Your task to perform on an android device: turn on the 24-hour format for clock Image 0: 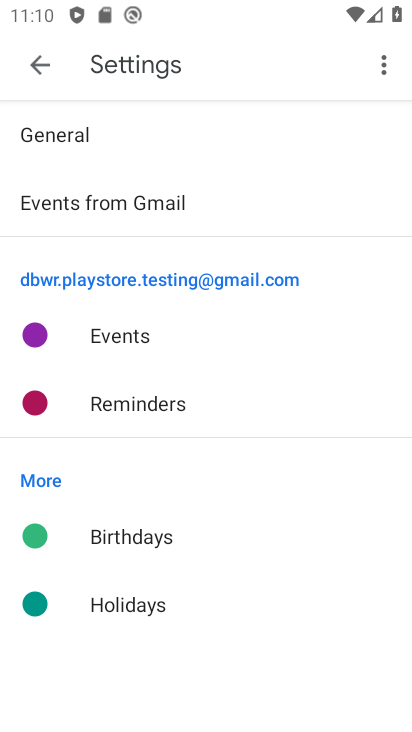
Step 0: press home button
Your task to perform on an android device: turn on the 24-hour format for clock Image 1: 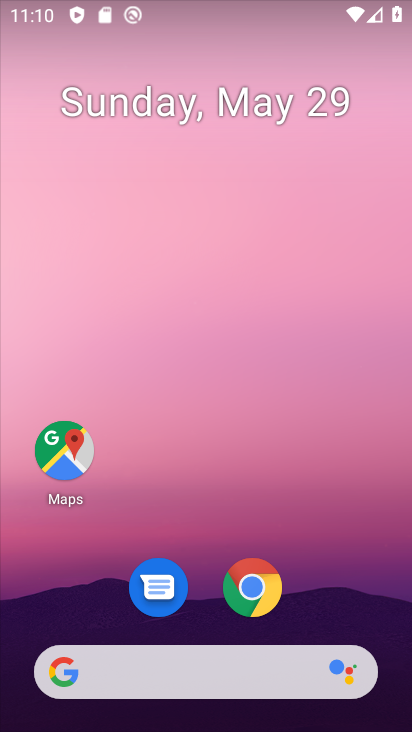
Step 1: drag from (365, 617) to (291, 89)
Your task to perform on an android device: turn on the 24-hour format for clock Image 2: 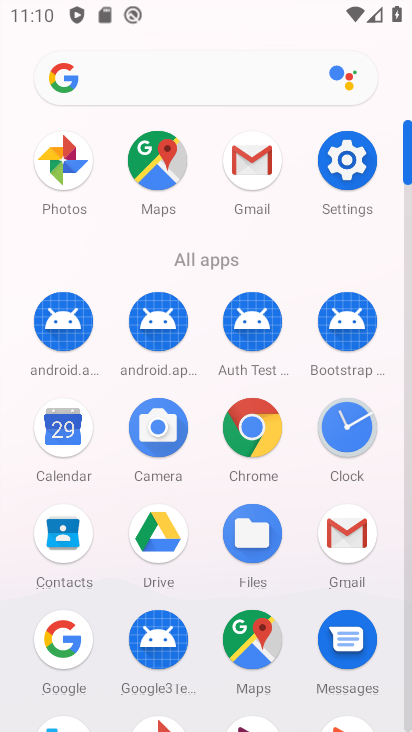
Step 2: click (347, 434)
Your task to perform on an android device: turn on the 24-hour format for clock Image 3: 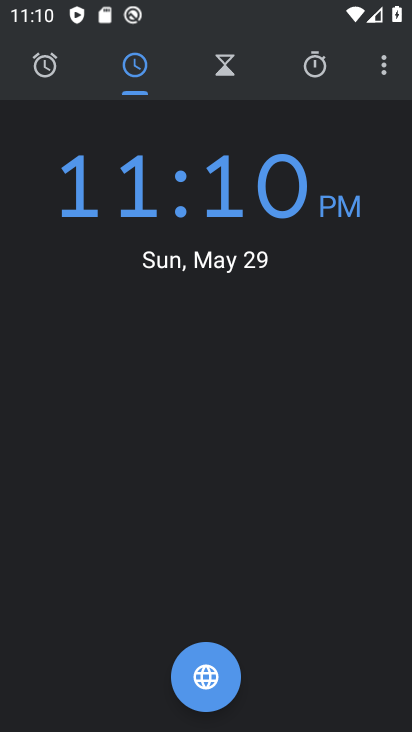
Step 3: click (382, 62)
Your task to perform on an android device: turn on the 24-hour format for clock Image 4: 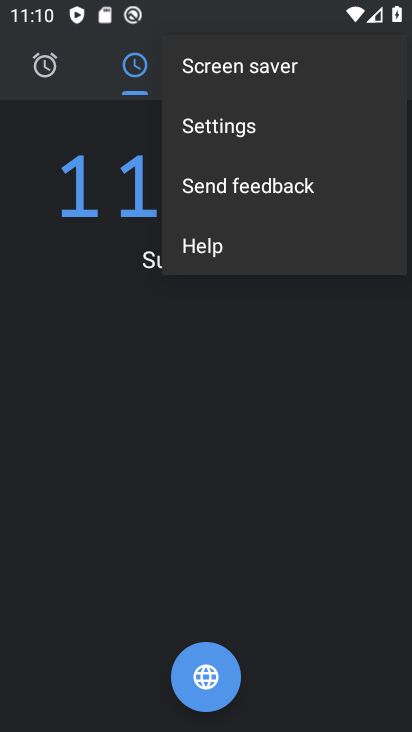
Step 4: click (312, 122)
Your task to perform on an android device: turn on the 24-hour format for clock Image 5: 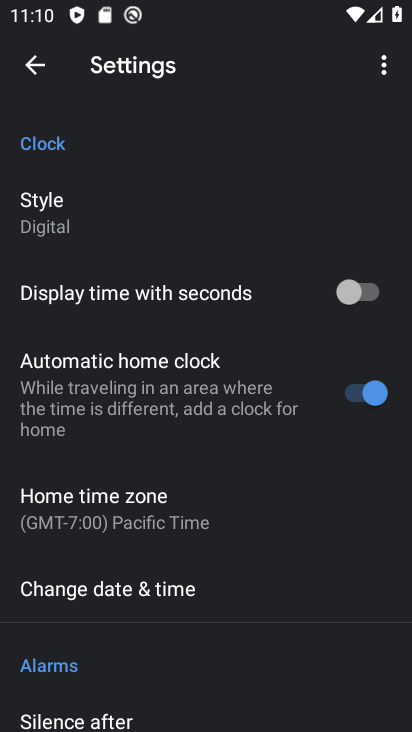
Step 5: click (207, 593)
Your task to perform on an android device: turn on the 24-hour format for clock Image 6: 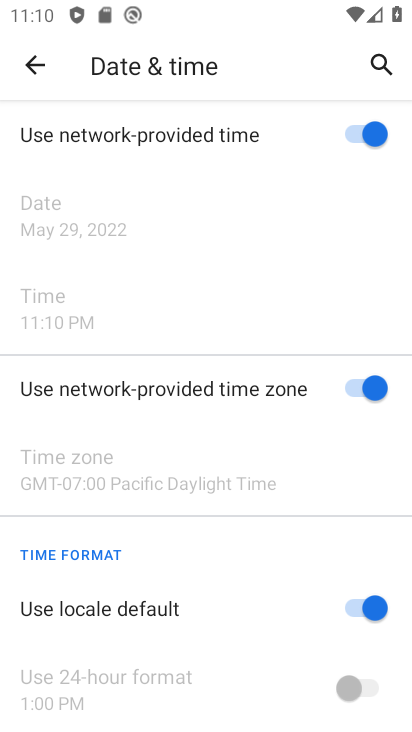
Step 6: drag from (217, 610) to (235, 408)
Your task to perform on an android device: turn on the 24-hour format for clock Image 7: 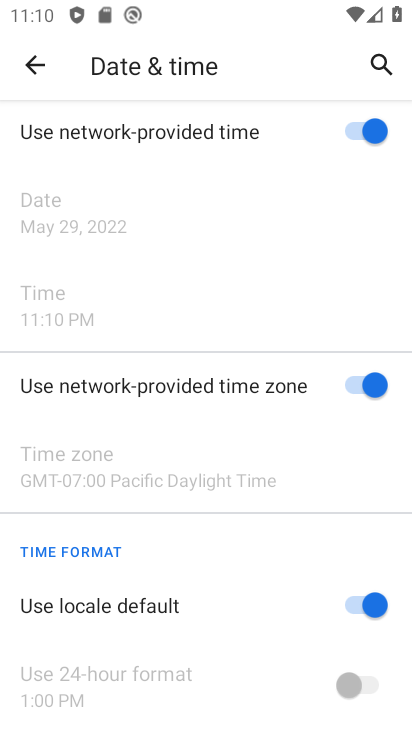
Step 7: click (359, 604)
Your task to perform on an android device: turn on the 24-hour format for clock Image 8: 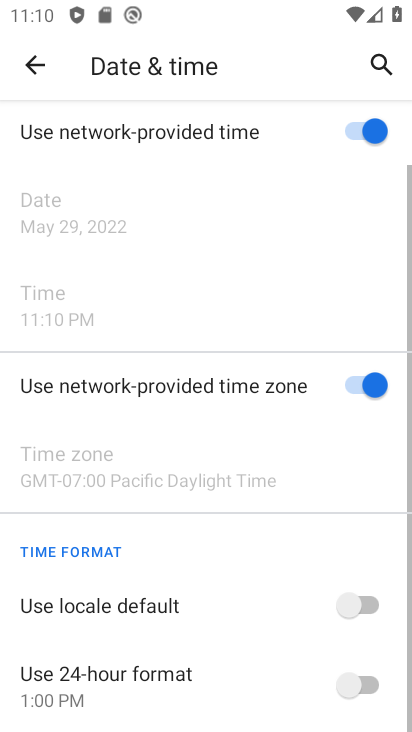
Step 8: click (364, 679)
Your task to perform on an android device: turn on the 24-hour format for clock Image 9: 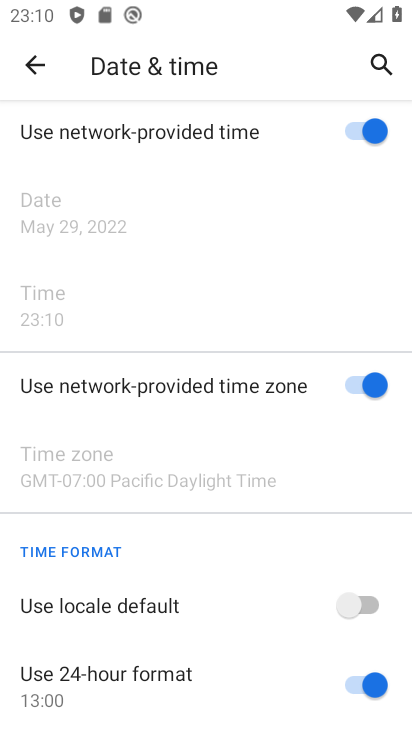
Step 9: task complete